Your task to perform on an android device: Go to notification settings Image 0: 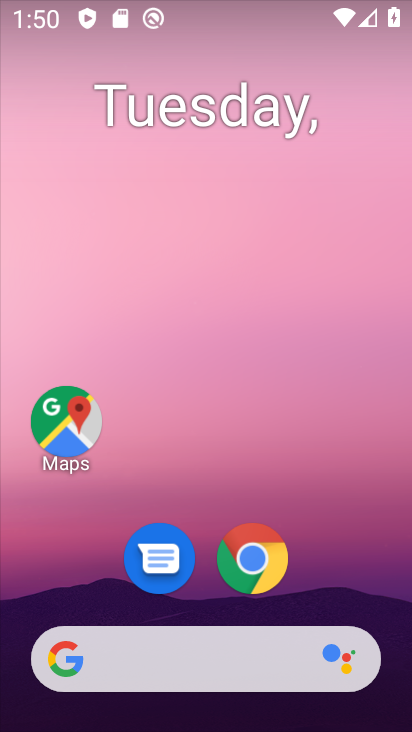
Step 0: drag from (194, 591) to (269, 13)
Your task to perform on an android device: Go to notification settings Image 1: 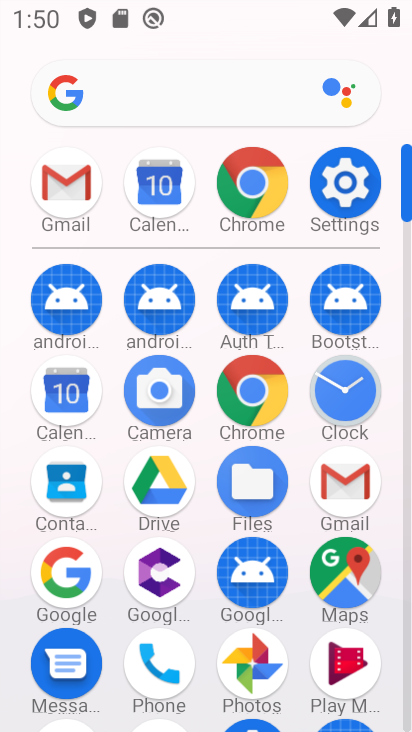
Step 1: click (337, 199)
Your task to perform on an android device: Go to notification settings Image 2: 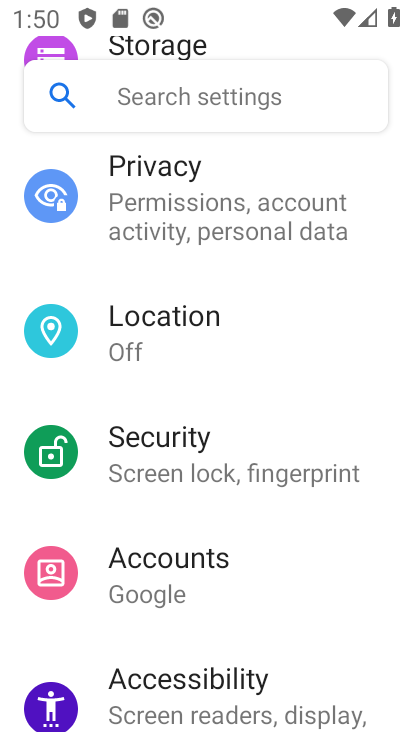
Step 2: drag from (205, 220) to (155, 690)
Your task to perform on an android device: Go to notification settings Image 3: 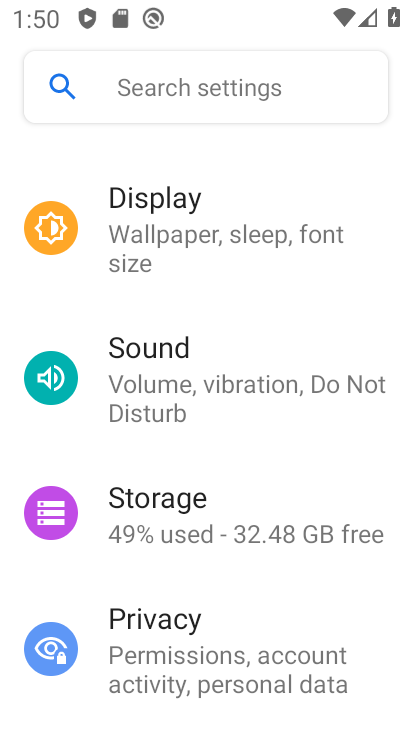
Step 3: drag from (174, 642) to (290, 211)
Your task to perform on an android device: Go to notification settings Image 4: 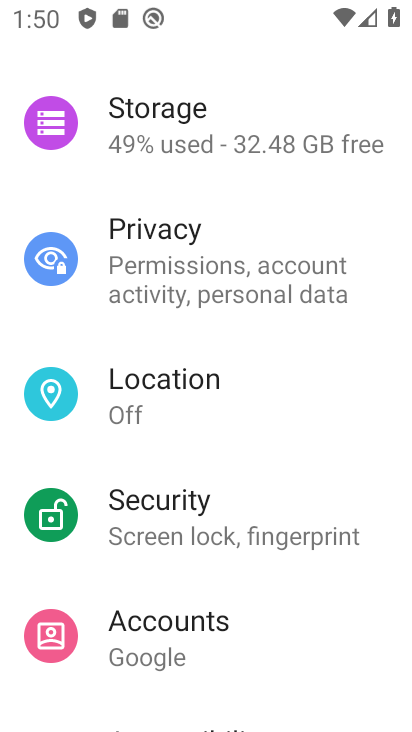
Step 4: drag from (212, 605) to (321, 95)
Your task to perform on an android device: Go to notification settings Image 5: 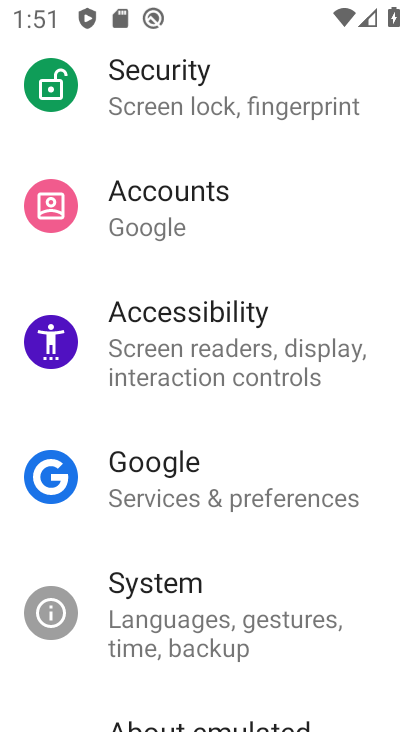
Step 5: drag from (211, 87) to (200, 619)
Your task to perform on an android device: Go to notification settings Image 6: 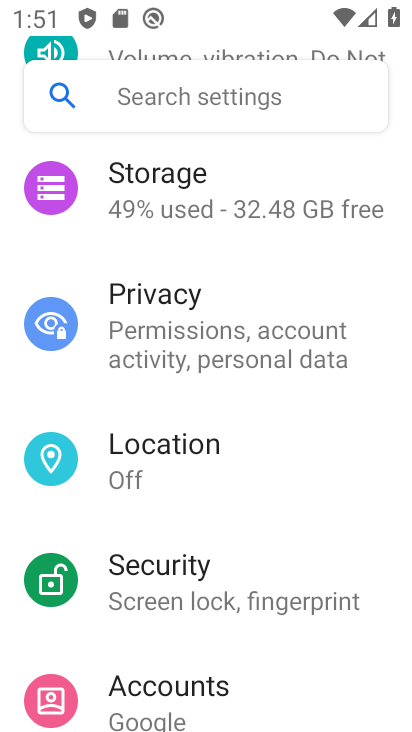
Step 6: drag from (208, 192) to (208, 623)
Your task to perform on an android device: Go to notification settings Image 7: 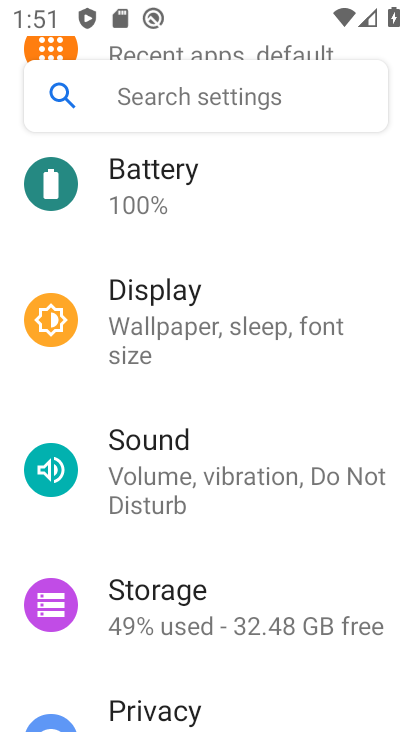
Step 7: drag from (205, 192) to (202, 647)
Your task to perform on an android device: Go to notification settings Image 8: 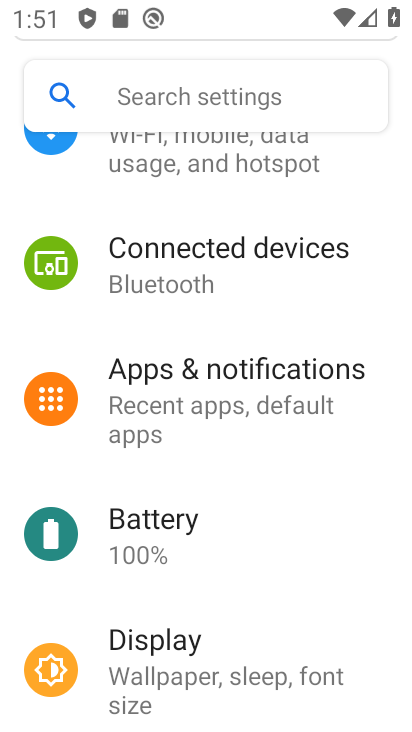
Step 8: click (232, 403)
Your task to perform on an android device: Go to notification settings Image 9: 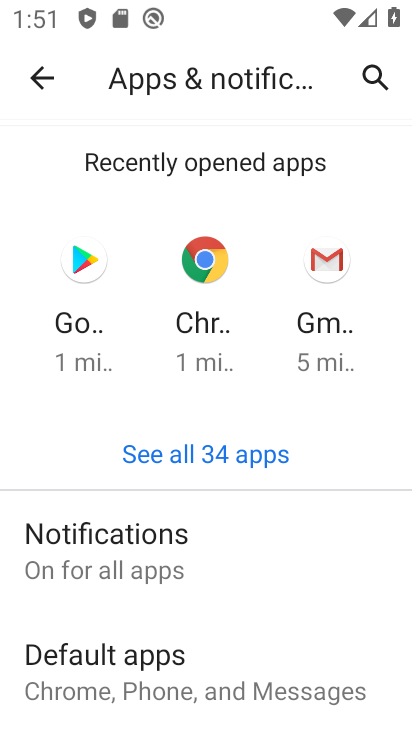
Step 9: task complete